Your task to perform on an android device: Open Yahoo.com Image 0: 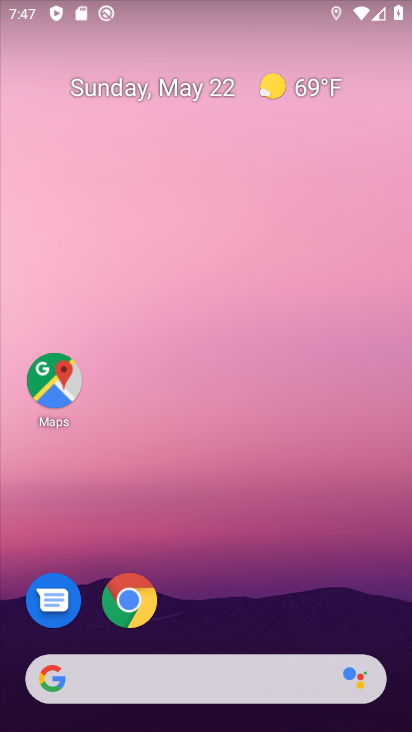
Step 0: click (130, 602)
Your task to perform on an android device: Open Yahoo.com Image 1: 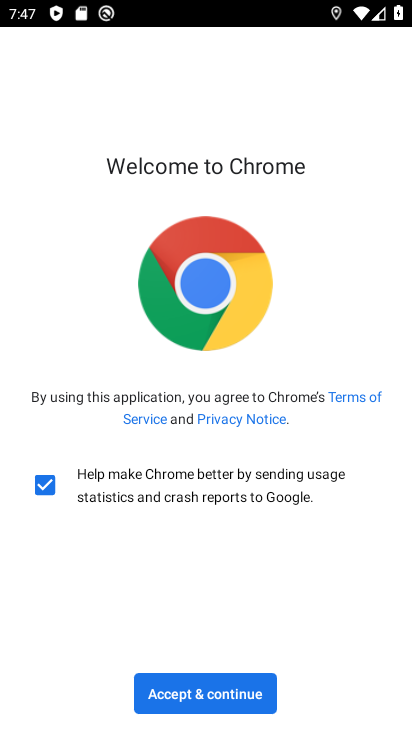
Step 1: click (255, 686)
Your task to perform on an android device: Open Yahoo.com Image 2: 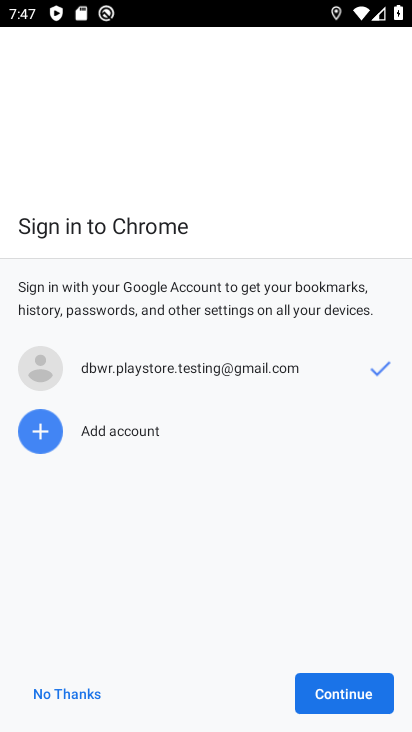
Step 2: click (340, 689)
Your task to perform on an android device: Open Yahoo.com Image 3: 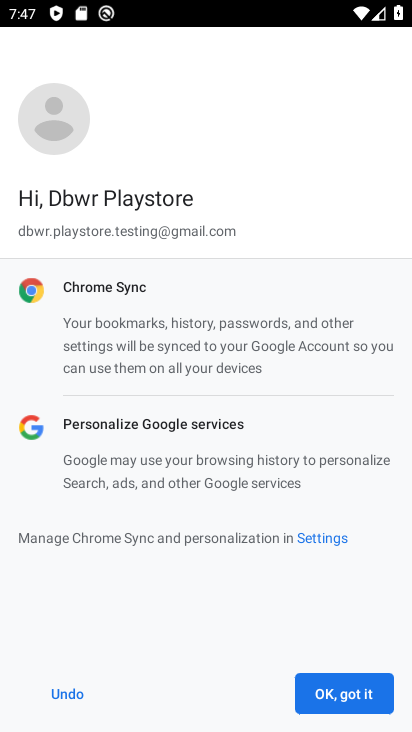
Step 3: click (340, 687)
Your task to perform on an android device: Open Yahoo.com Image 4: 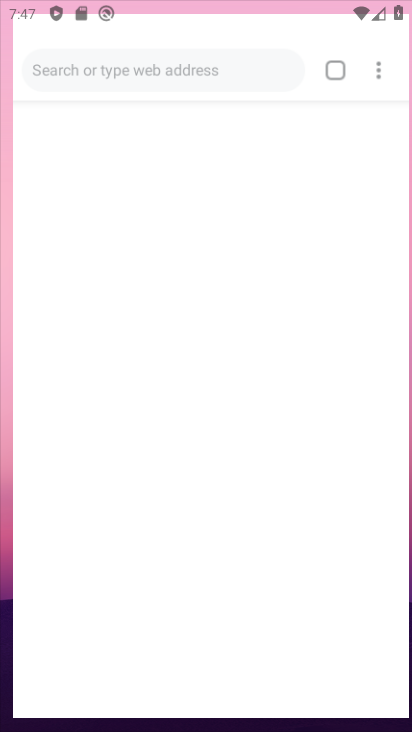
Step 4: click (340, 687)
Your task to perform on an android device: Open Yahoo.com Image 5: 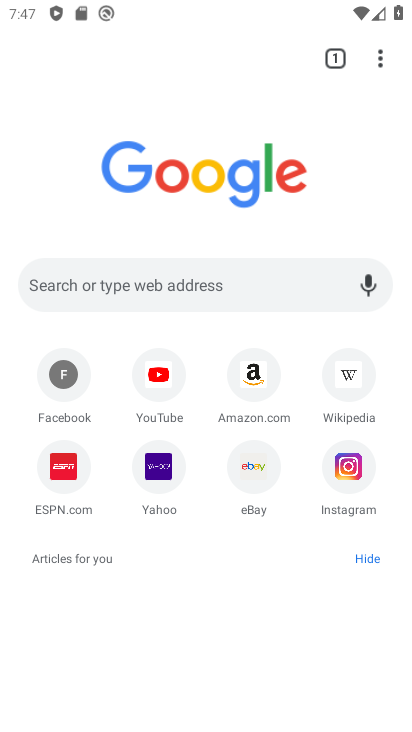
Step 5: click (152, 470)
Your task to perform on an android device: Open Yahoo.com Image 6: 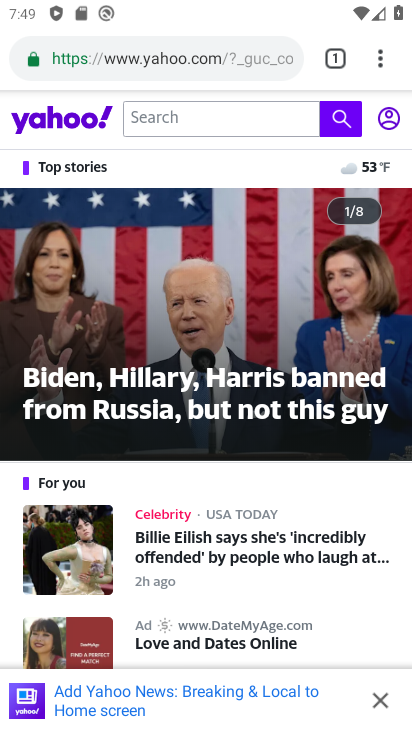
Step 6: task complete